Your task to perform on an android device: change alarm snooze length Image 0: 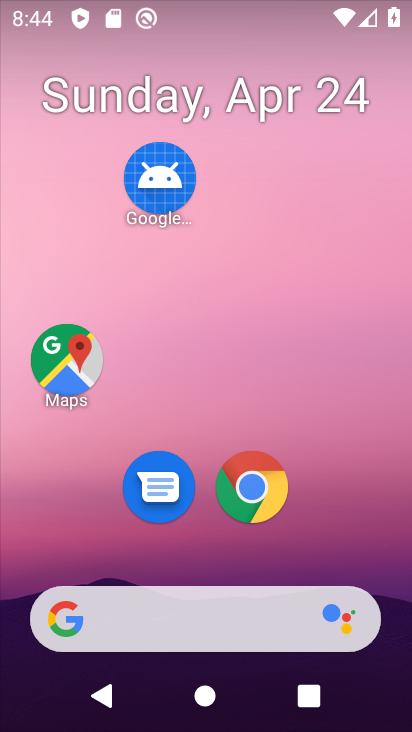
Step 0: drag from (331, 509) to (332, 146)
Your task to perform on an android device: change alarm snooze length Image 1: 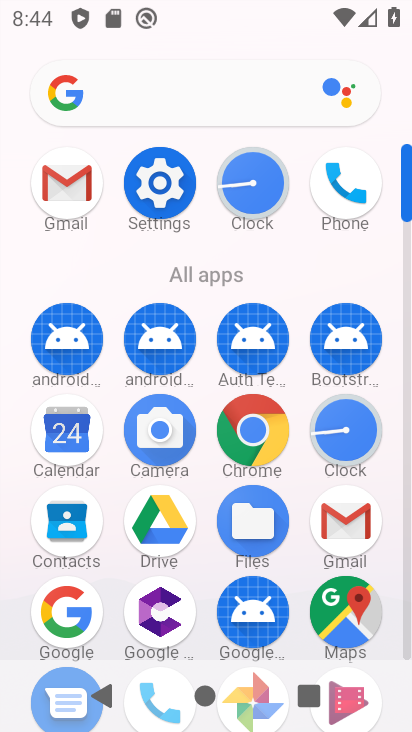
Step 1: click (259, 191)
Your task to perform on an android device: change alarm snooze length Image 2: 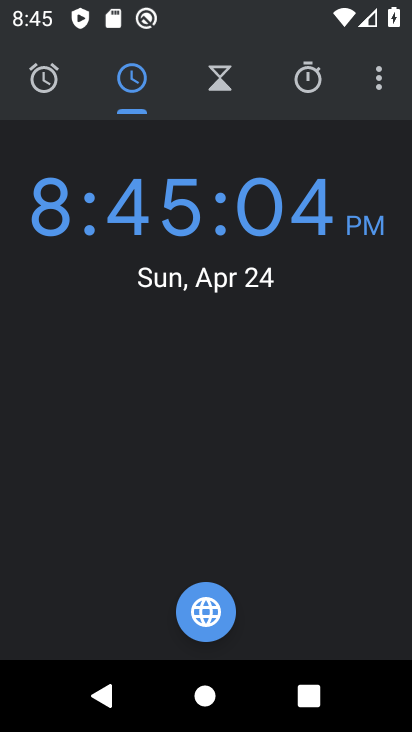
Step 2: click (382, 79)
Your task to perform on an android device: change alarm snooze length Image 3: 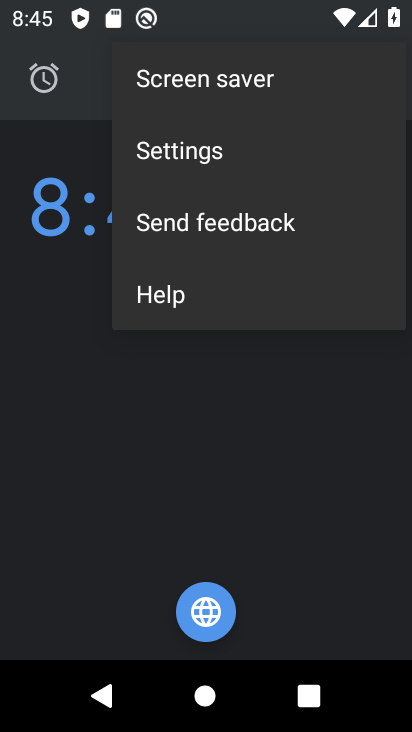
Step 3: click (180, 146)
Your task to perform on an android device: change alarm snooze length Image 4: 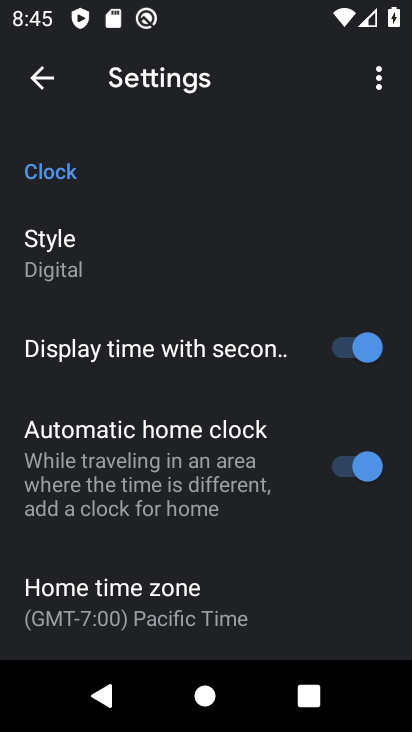
Step 4: drag from (189, 602) to (171, 265)
Your task to perform on an android device: change alarm snooze length Image 5: 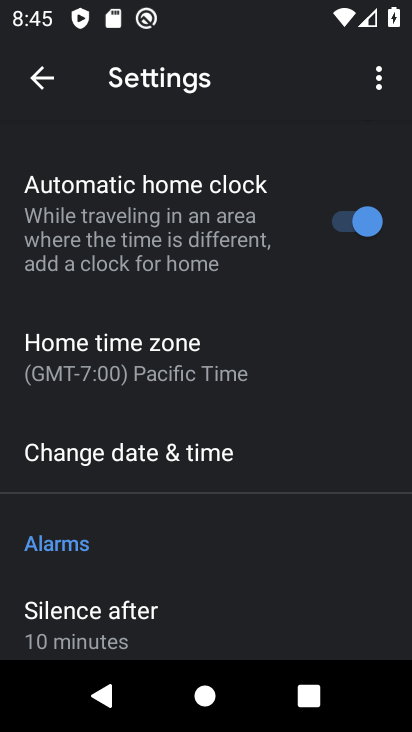
Step 5: drag from (182, 576) to (172, 291)
Your task to perform on an android device: change alarm snooze length Image 6: 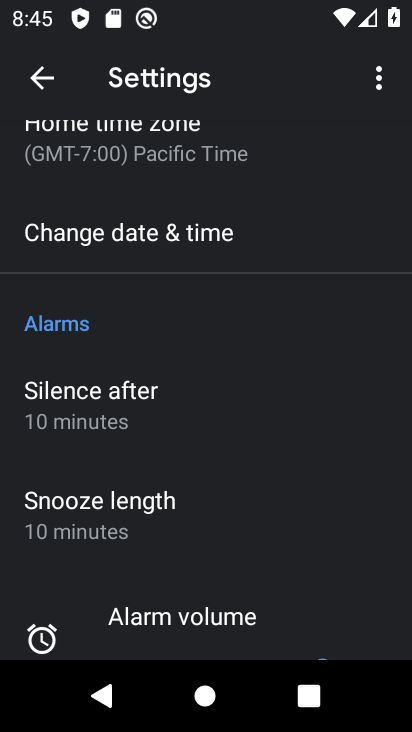
Step 6: click (98, 526)
Your task to perform on an android device: change alarm snooze length Image 7: 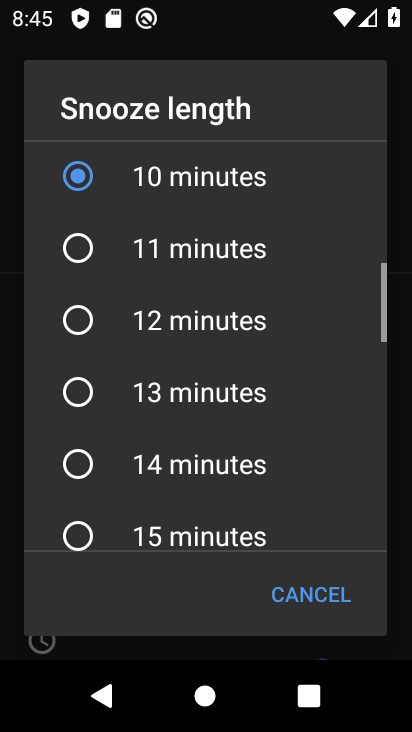
Step 7: click (98, 525)
Your task to perform on an android device: change alarm snooze length Image 8: 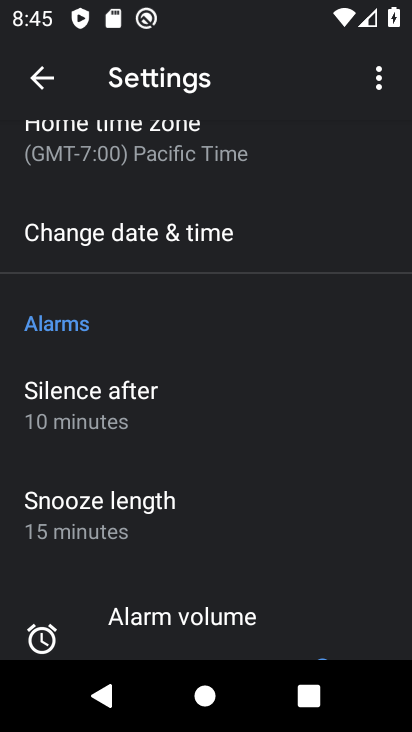
Step 8: task complete